Your task to perform on an android device: turn on javascript in the chrome app Image 0: 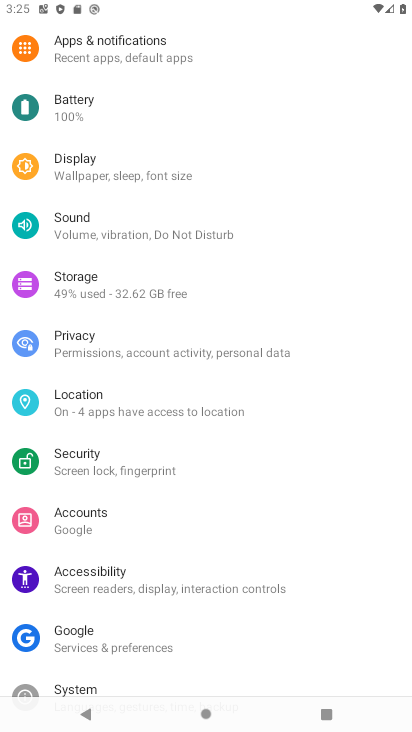
Step 0: press home button
Your task to perform on an android device: turn on javascript in the chrome app Image 1: 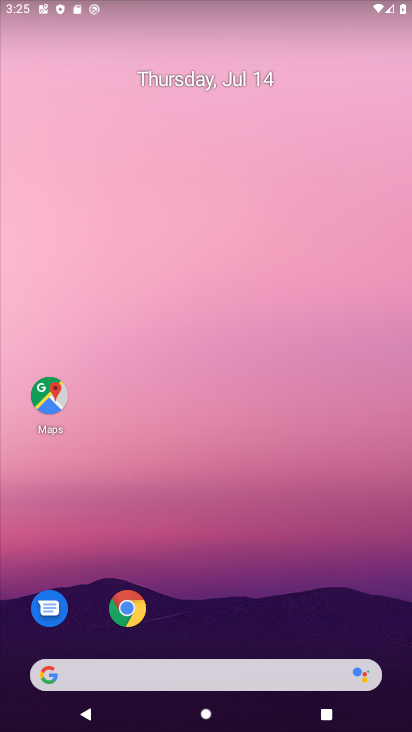
Step 1: click (114, 615)
Your task to perform on an android device: turn on javascript in the chrome app Image 2: 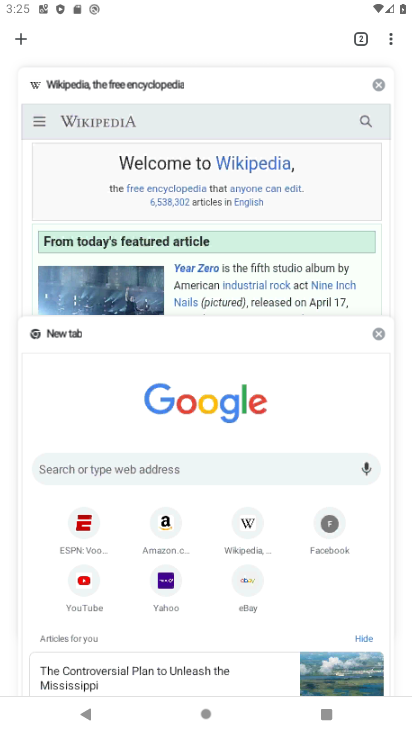
Step 2: click (373, 89)
Your task to perform on an android device: turn on javascript in the chrome app Image 3: 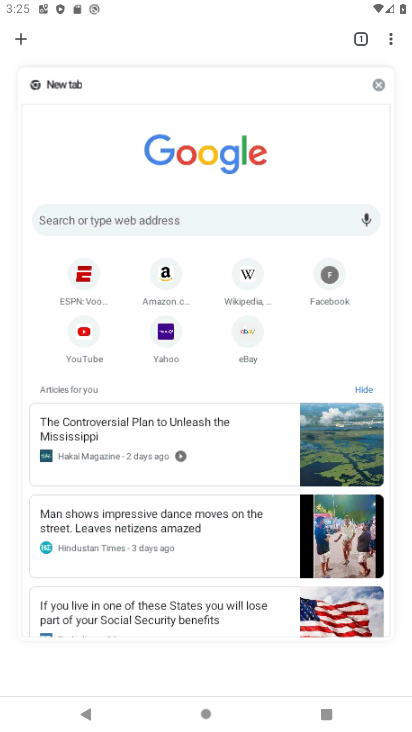
Step 3: click (377, 87)
Your task to perform on an android device: turn on javascript in the chrome app Image 4: 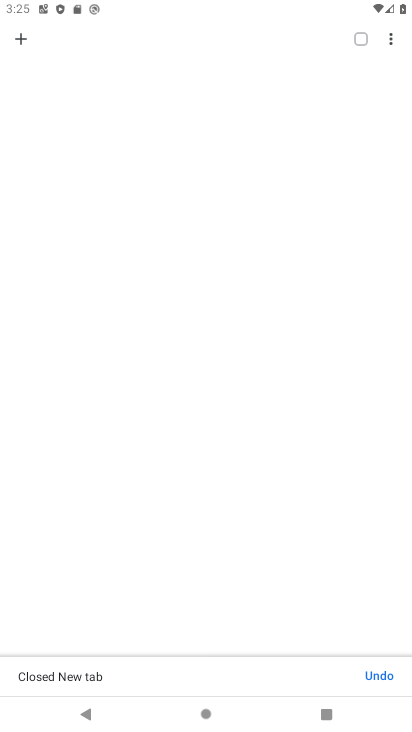
Step 4: click (15, 42)
Your task to perform on an android device: turn on javascript in the chrome app Image 5: 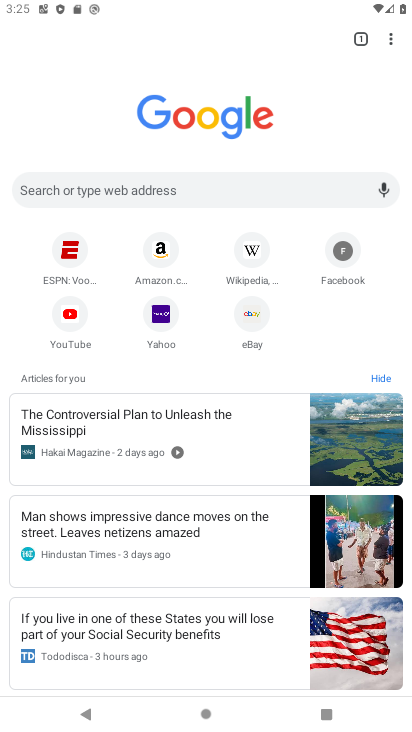
Step 5: click (390, 38)
Your task to perform on an android device: turn on javascript in the chrome app Image 6: 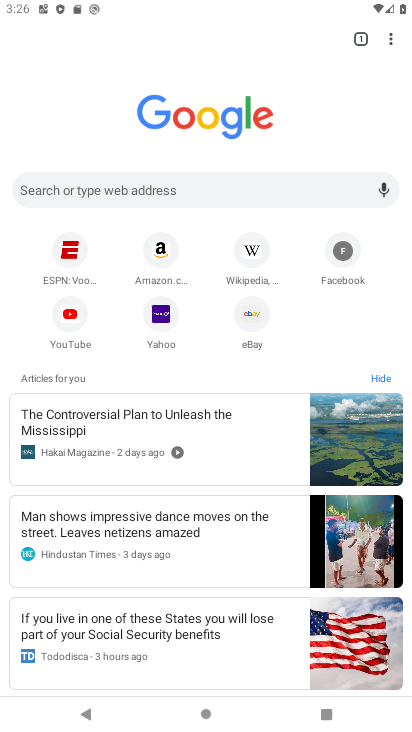
Step 6: click (389, 40)
Your task to perform on an android device: turn on javascript in the chrome app Image 7: 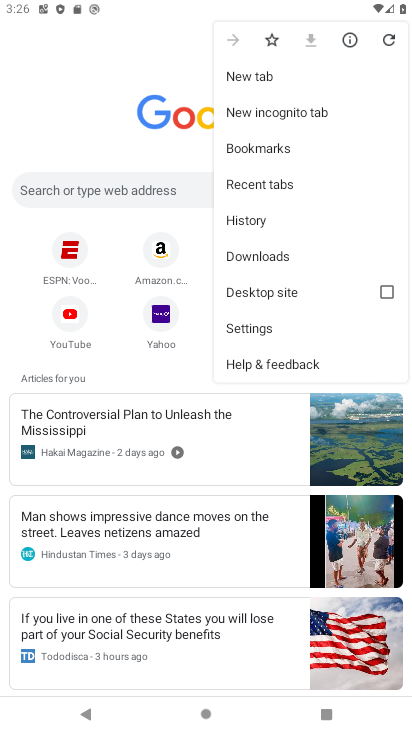
Step 7: click (256, 329)
Your task to perform on an android device: turn on javascript in the chrome app Image 8: 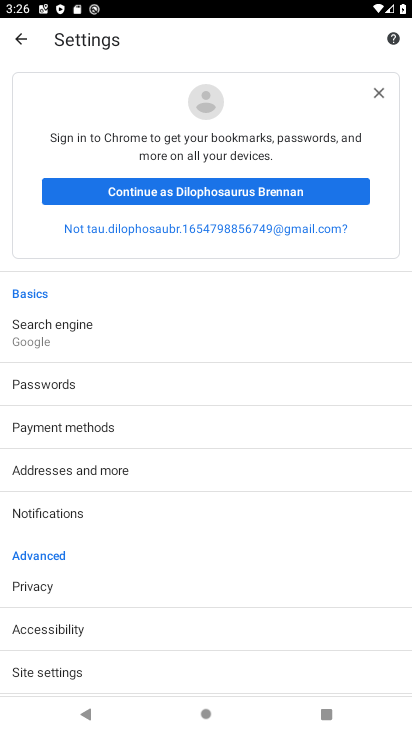
Step 8: click (27, 671)
Your task to perform on an android device: turn on javascript in the chrome app Image 9: 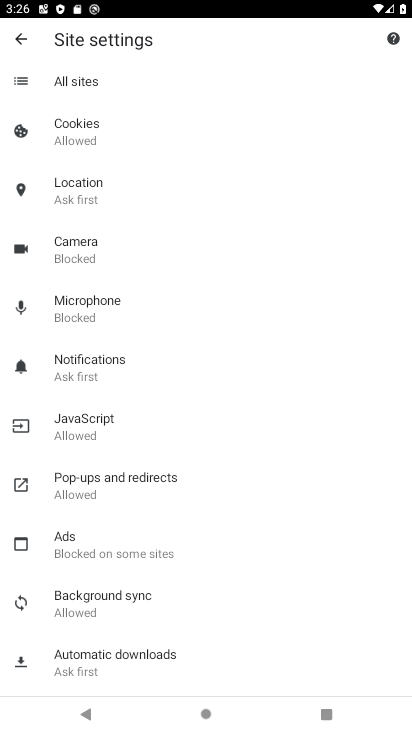
Step 9: click (110, 414)
Your task to perform on an android device: turn on javascript in the chrome app Image 10: 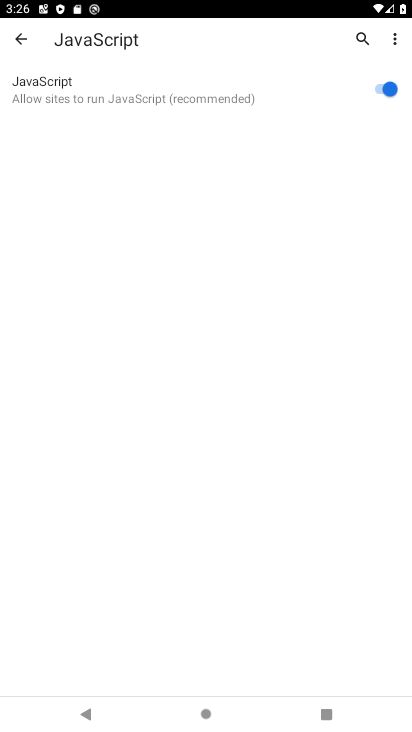
Step 10: task complete